Your task to perform on an android device: Open a new Chrome private tab Image 0: 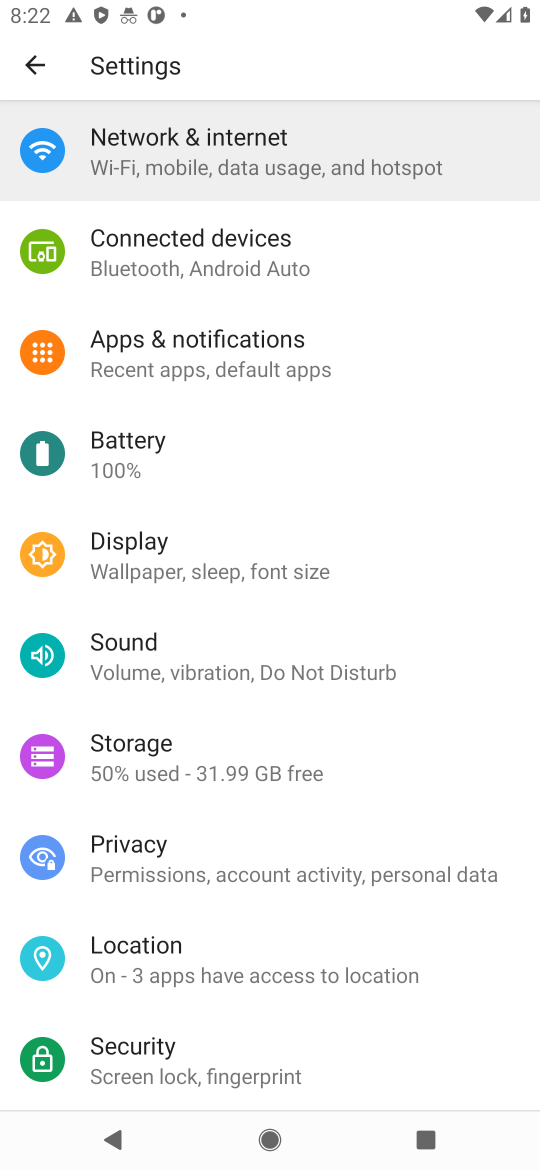
Step 0: press home button
Your task to perform on an android device: Open a new Chrome private tab Image 1: 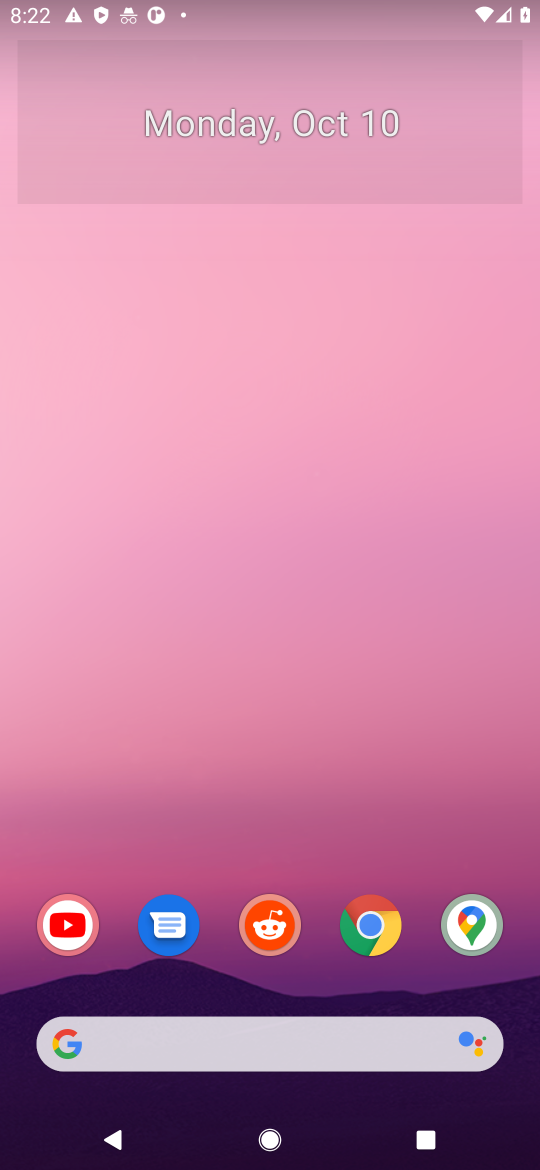
Step 1: drag from (324, 814) to (338, 10)
Your task to perform on an android device: Open a new Chrome private tab Image 2: 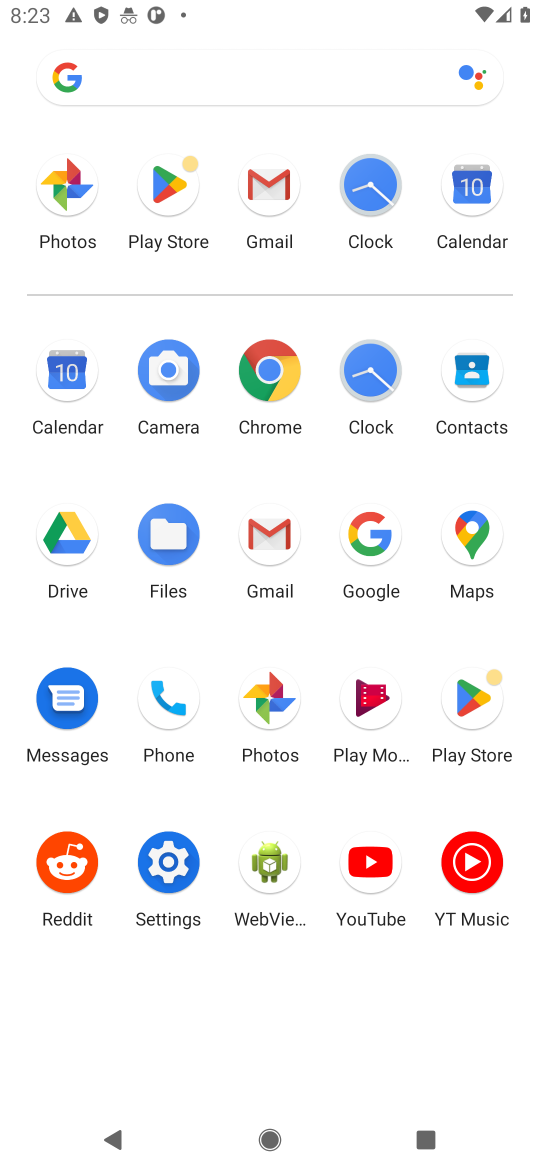
Step 2: click (279, 372)
Your task to perform on an android device: Open a new Chrome private tab Image 3: 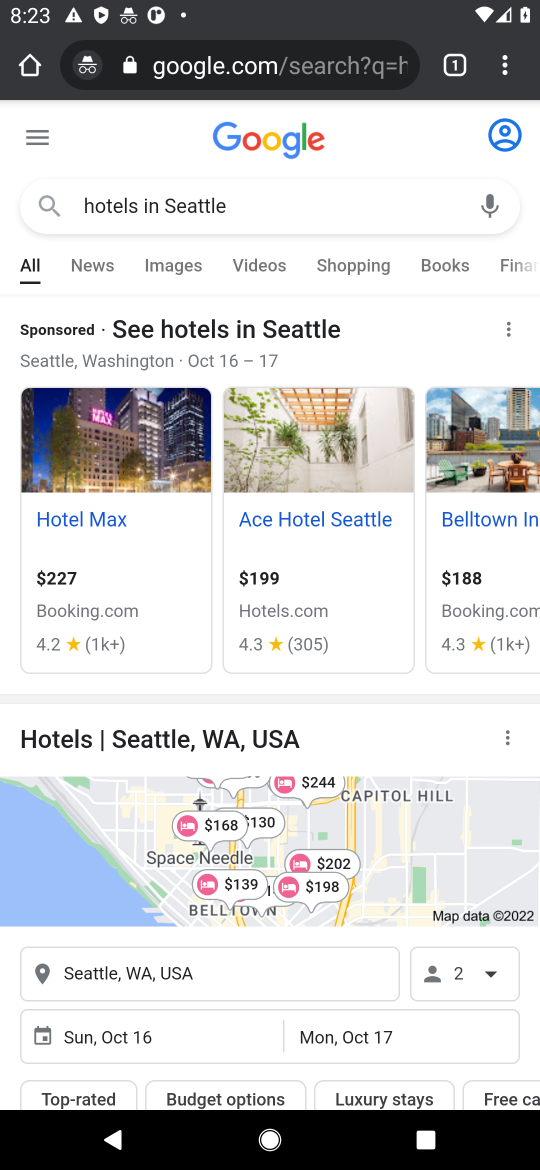
Step 3: task complete